Your task to perform on an android device: Do I have any events tomorrow? Image 0: 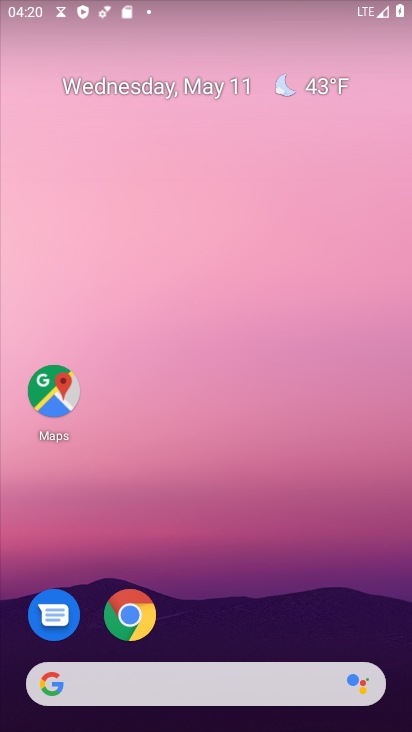
Step 0: drag from (225, 490) to (218, 35)
Your task to perform on an android device: Do I have any events tomorrow? Image 1: 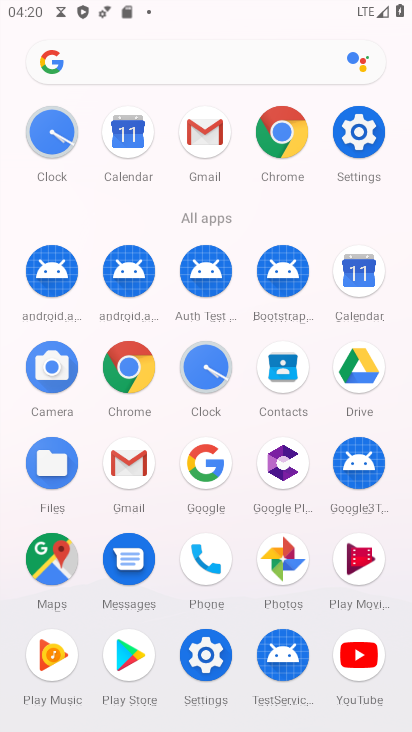
Step 1: drag from (21, 571) to (19, 171)
Your task to perform on an android device: Do I have any events tomorrow? Image 2: 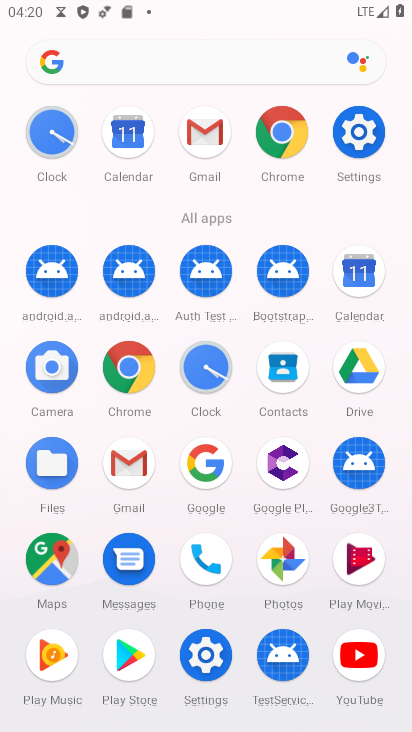
Step 2: drag from (12, 563) to (13, 265)
Your task to perform on an android device: Do I have any events tomorrow? Image 3: 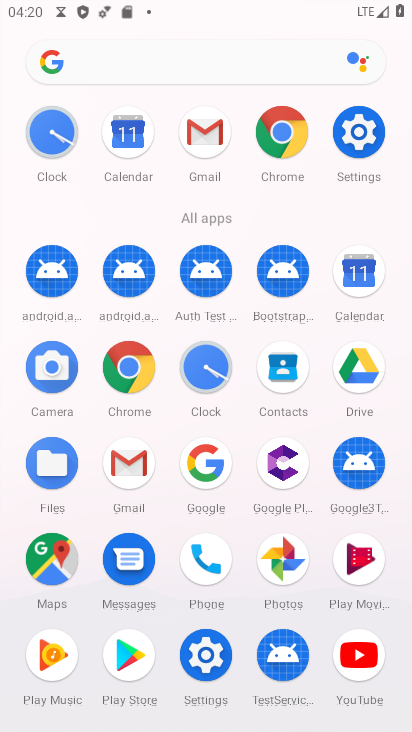
Step 3: drag from (2, 577) to (1, 275)
Your task to perform on an android device: Do I have any events tomorrow? Image 4: 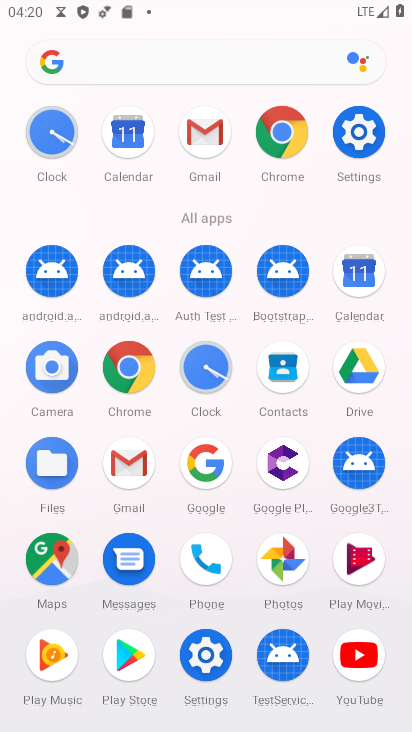
Step 4: click (363, 269)
Your task to perform on an android device: Do I have any events tomorrow? Image 5: 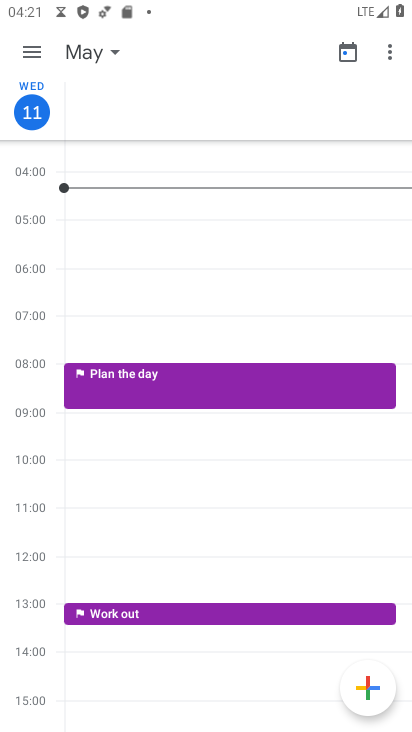
Step 5: drag from (172, 611) to (206, 267)
Your task to perform on an android device: Do I have any events tomorrow? Image 6: 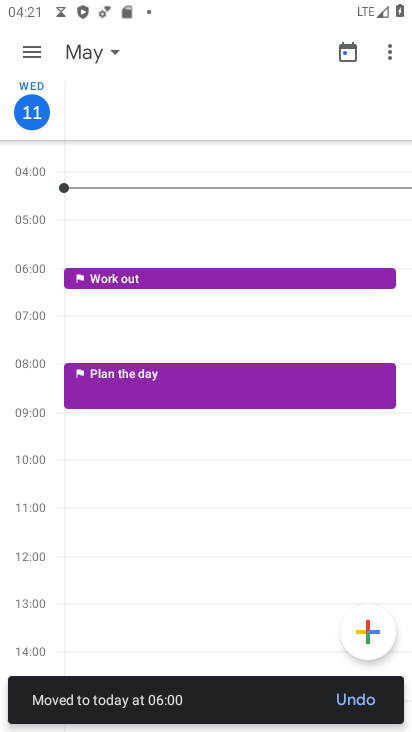
Step 6: click (36, 51)
Your task to perform on an android device: Do I have any events tomorrow? Image 7: 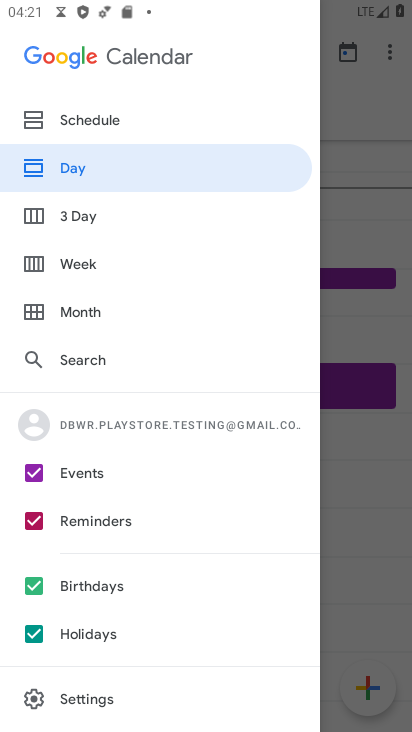
Step 7: click (353, 103)
Your task to perform on an android device: Do I have any events tomorrow? Image 8: 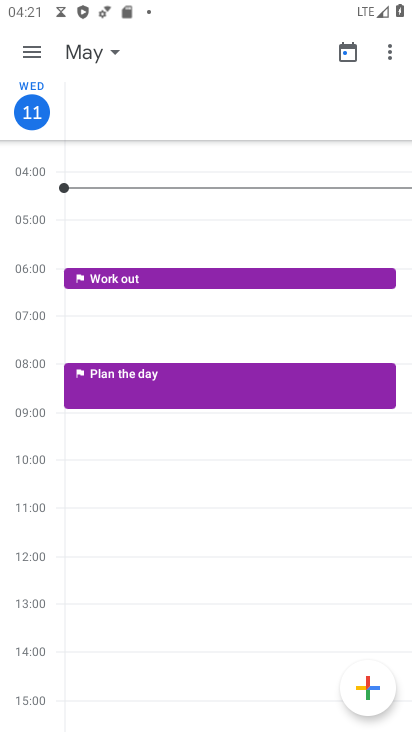
Step 8: task complete